Your task to perform on an android device: check the backup settings in the google photos Image 0: 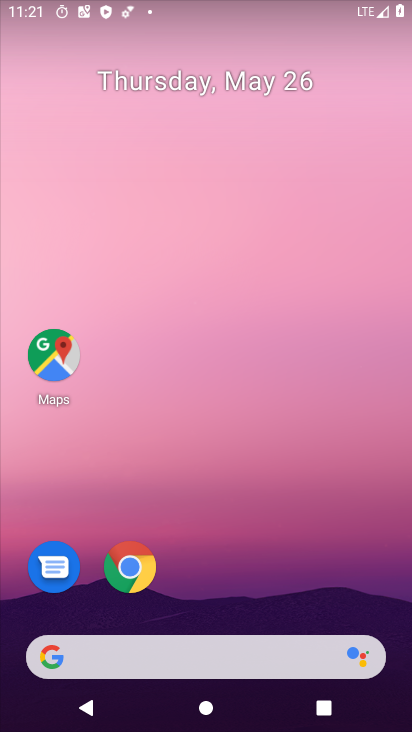
Step 0: drag from (128, 714) to (176, 60)
Your task to perform on an android device: check the backup settings in the google photos Image 1: 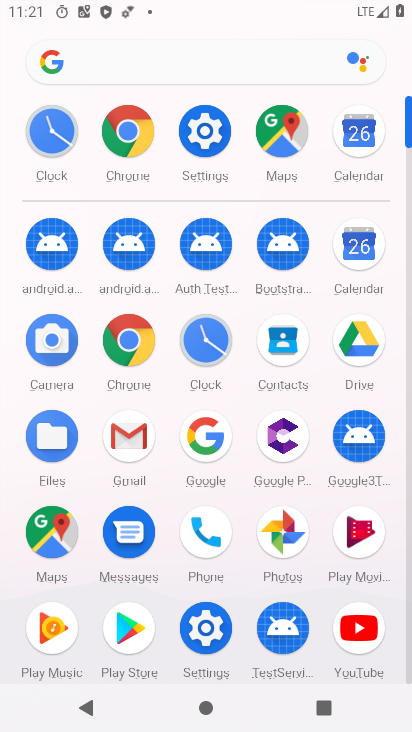
Step 1: click (285, 515)
Your task to perform on an android device: check the backup settings in the google photos Image 2: 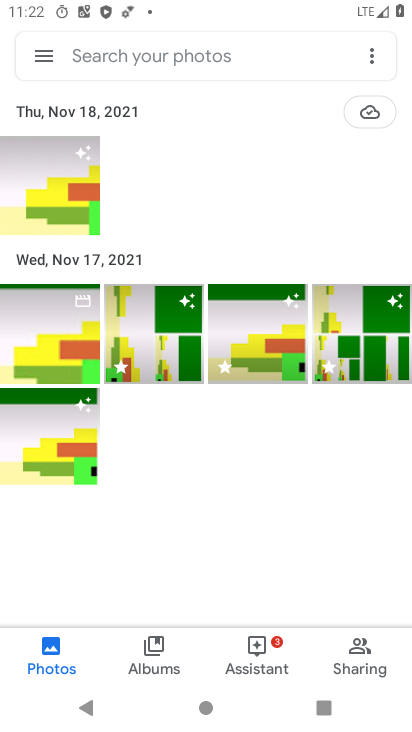
Step 2: click (50, 55)
Your task to perform on an android device: check the backup settings in the google photos Image 3: 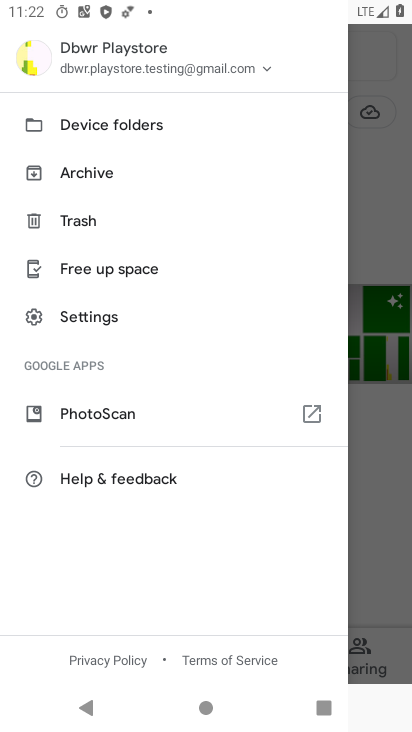
Step 3: click (131, 305)
Your task to perform on an android device: check the backup settings in the google photos Image 4: 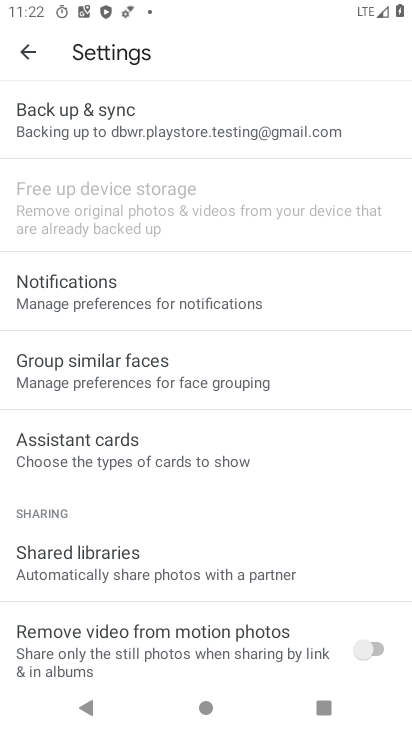
Step 4: click (229, 115)
Your task to perform on an android device: check the backup settings in the google photos Image 5: 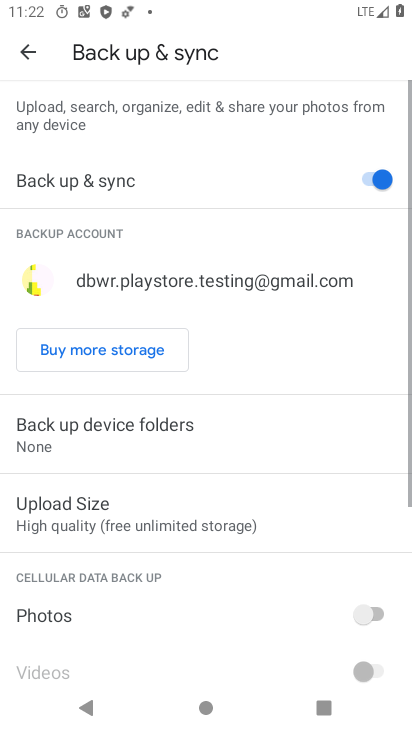
Step 5: task complete